Your task to perform on an android device: turn off wifi Image 0: 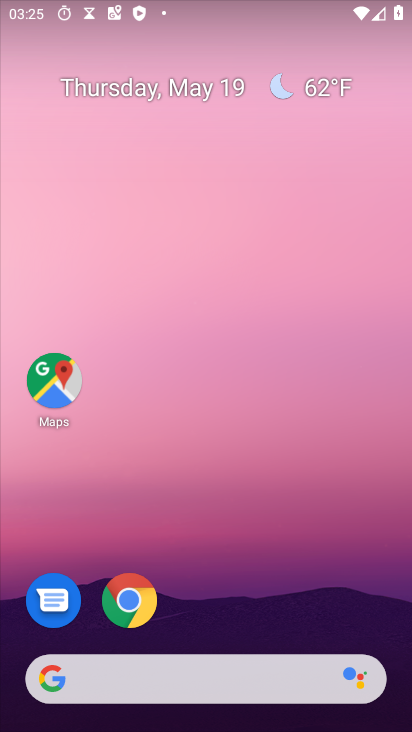
Step 0: drag from (298, 17) to (294, 576)
Your task to perform on an android device: turn off wifi Image 1: 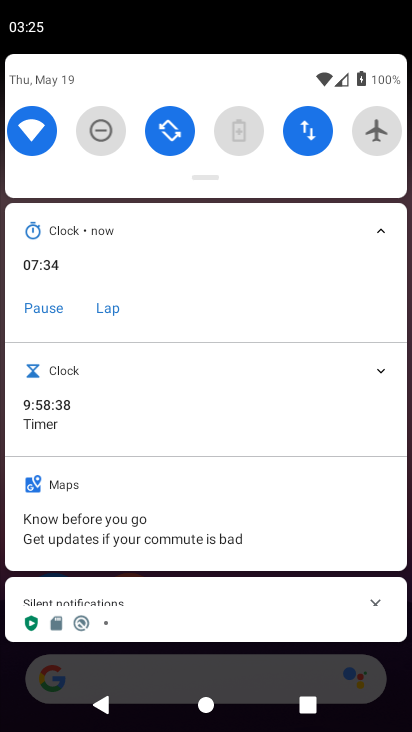
Step 1: click (37, 133)
Your task to perform on an android device: turn off wifi Image 2: 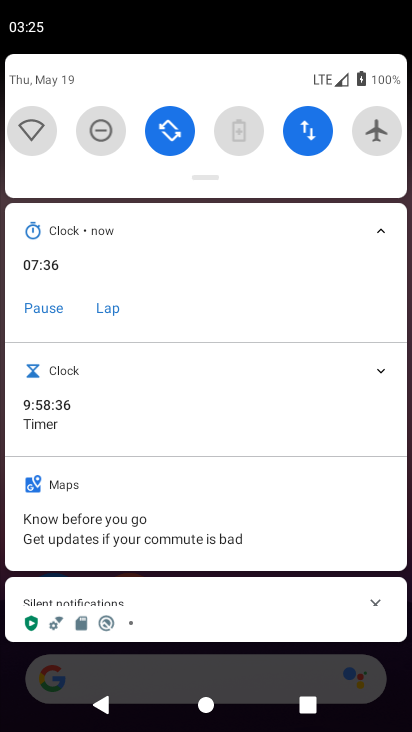
Step 2: task complete